Your task to perform on an android device: Open location settings Image 0: 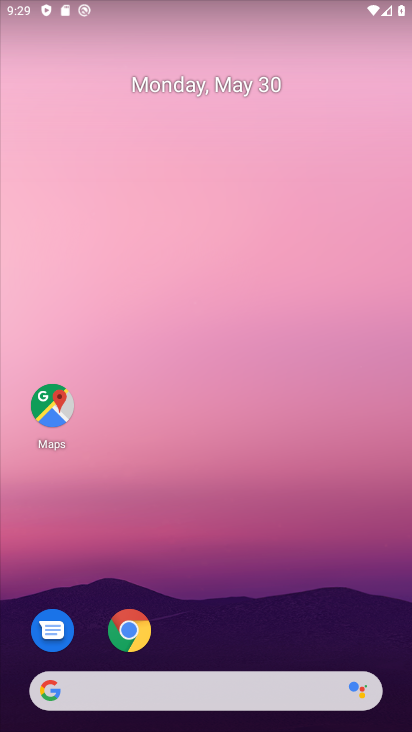
Step 0: drag from (320, 630) to (293, 49)
Your task to perform on an android device: Open location settings Image 1: 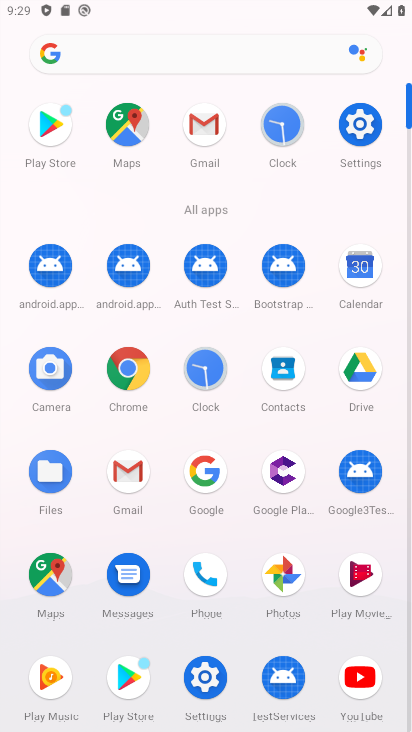
Step 1: click (357, 120)
Your task to perform on an android device: Open location settings Image 2: 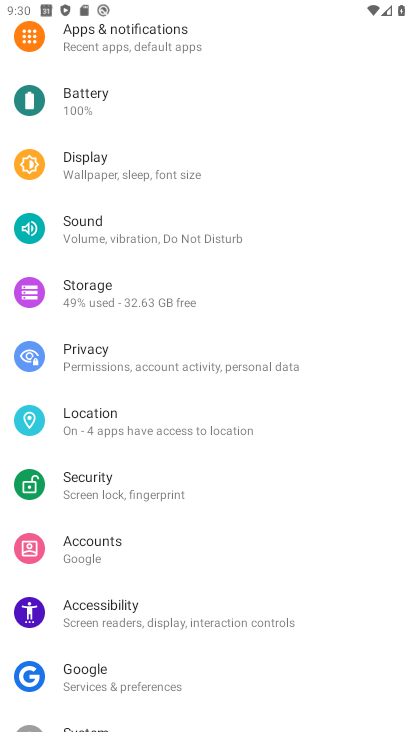
Step 2: click (158, 414)
Your task to perform on an android device: Open location settings Image 3: 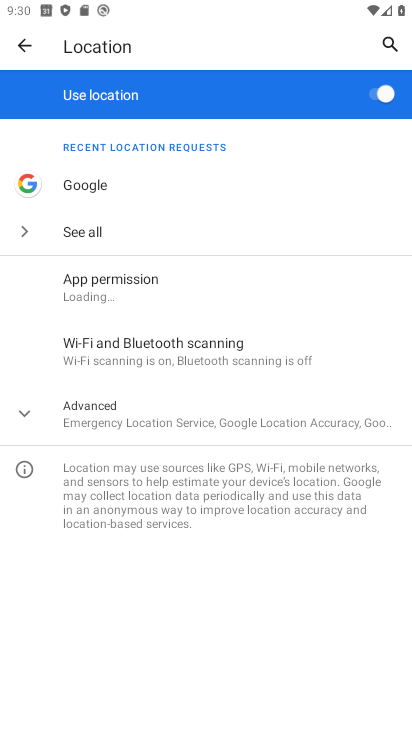
Step 3: task complete